Your task to perform on an android device: Go to location settings Image 0: 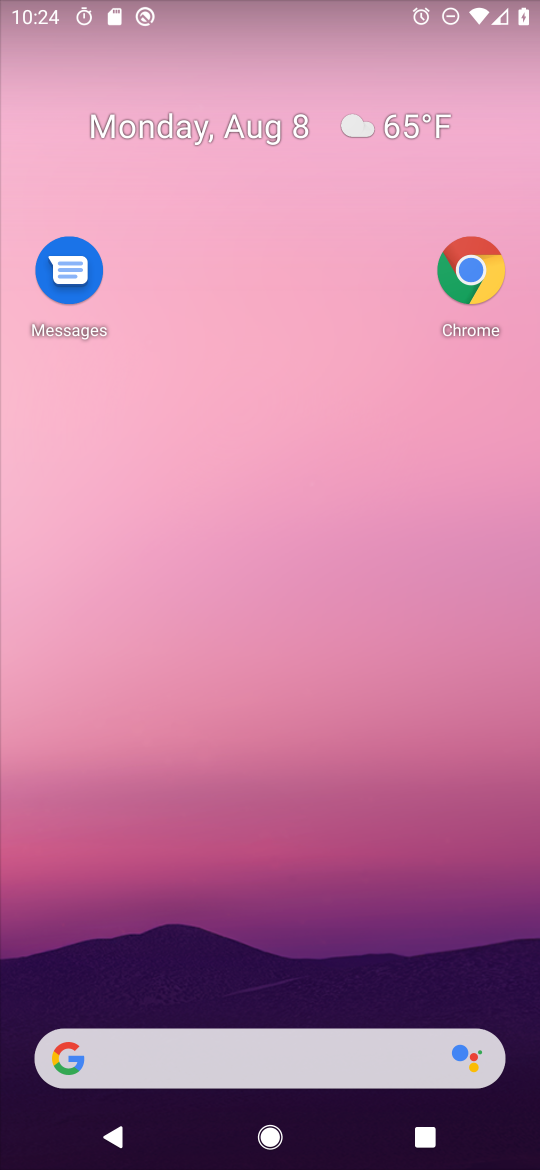
Step 0: drag from (265, 986) to (400, 44)
Your task to perform on an android device: Go to location settings Image 1: 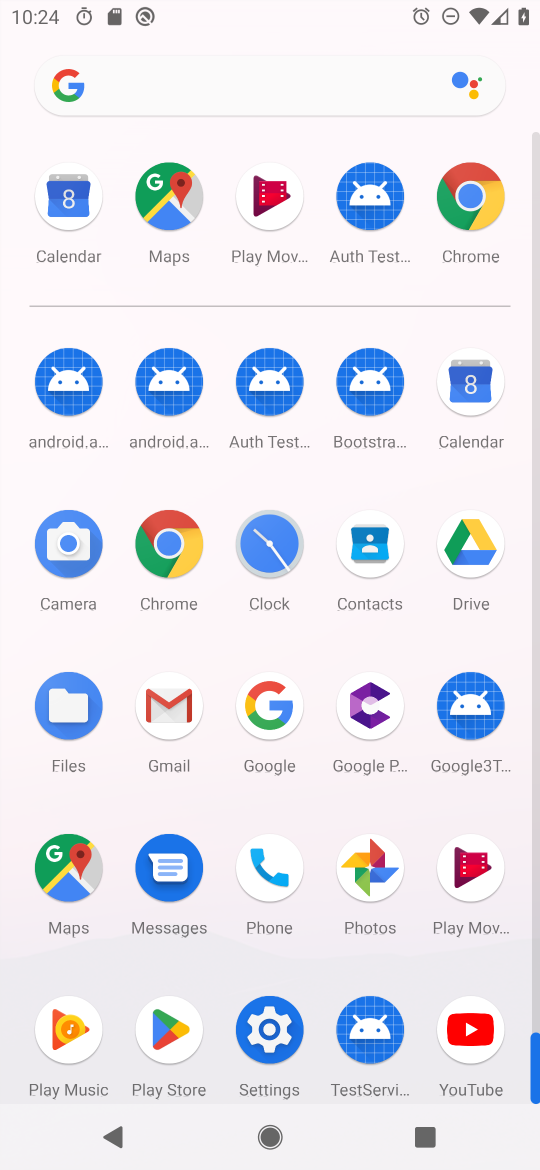
Step 1: click (252, 1028)
Your task to perform on an android device: Go to location settings Image 2: 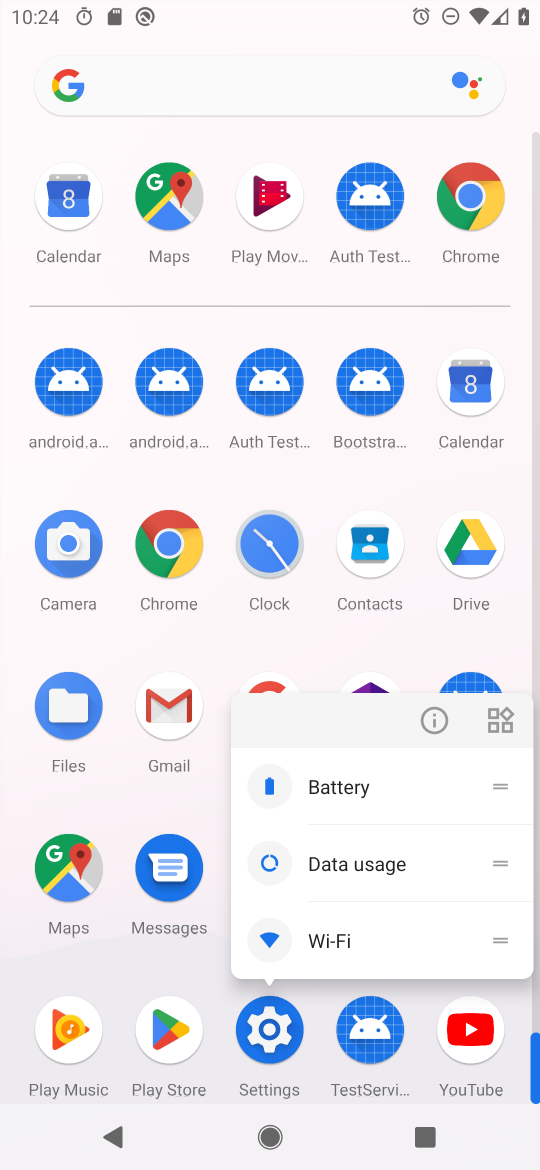
Step 2: click (436, 712)
Your task to perform on an android device: Go to location settings Image 3: 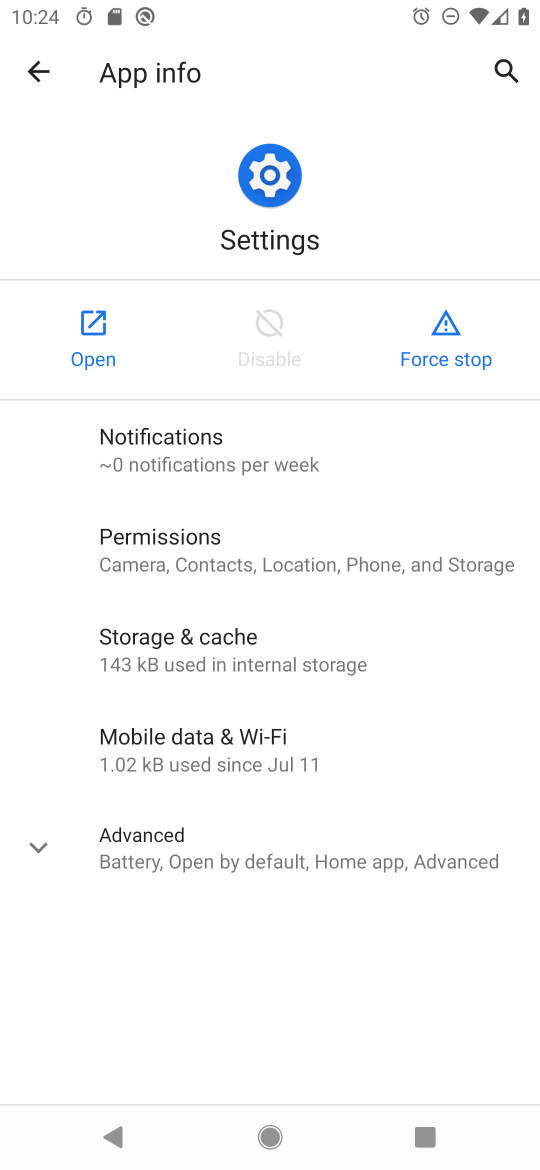
Step 3: click (107, 343)
Your task to perform on an android device: Go to location settings Image 4: 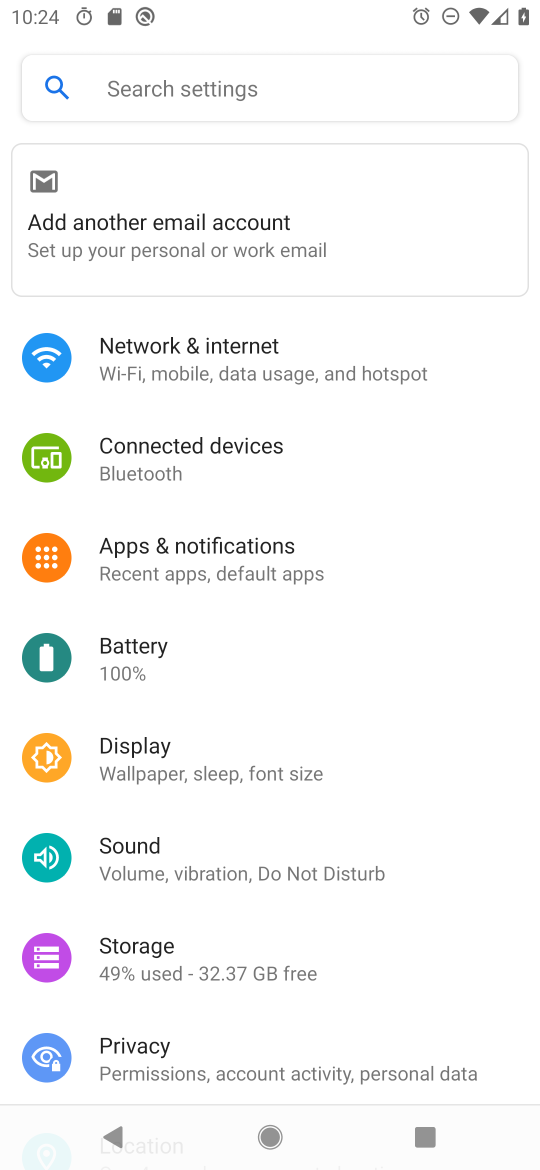
Step 4: drag from (264, 954) to (392, 522)
Your task to perform on an android device: Go to location settings Image 5: 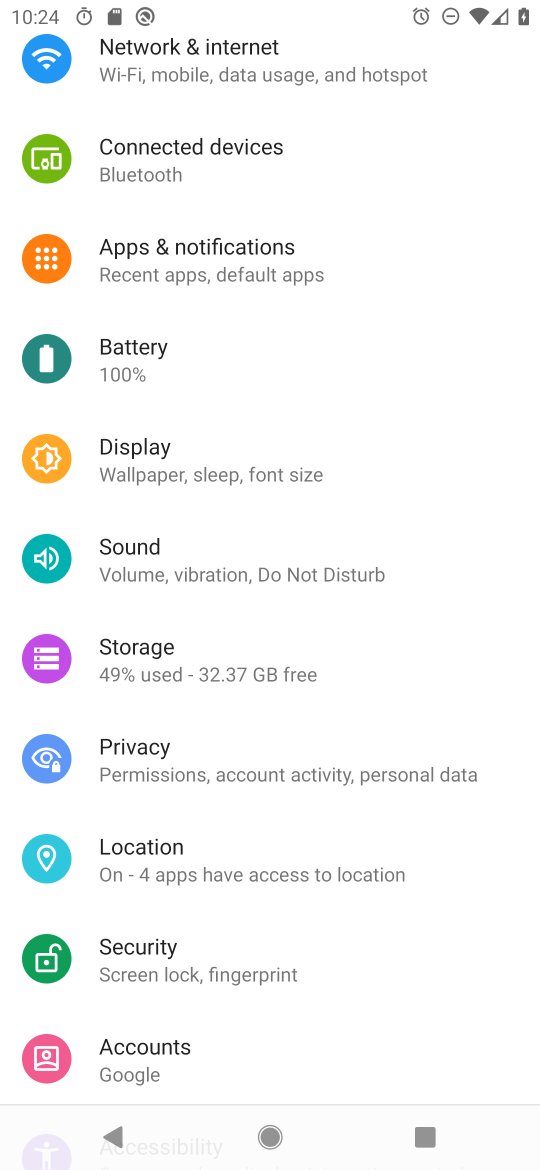
Step 5: click (156, 837)
Your task to perform on an android device: Go to location settings Image 6: 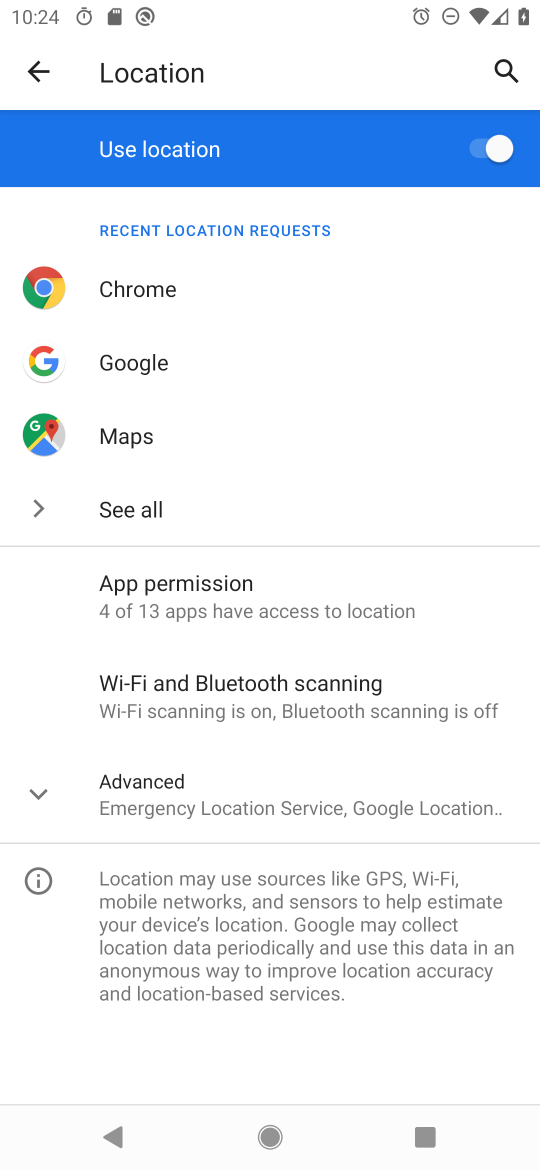
Step 6: click (111, 786)
Your task to perform on an android device: Go to location settings Image 7: 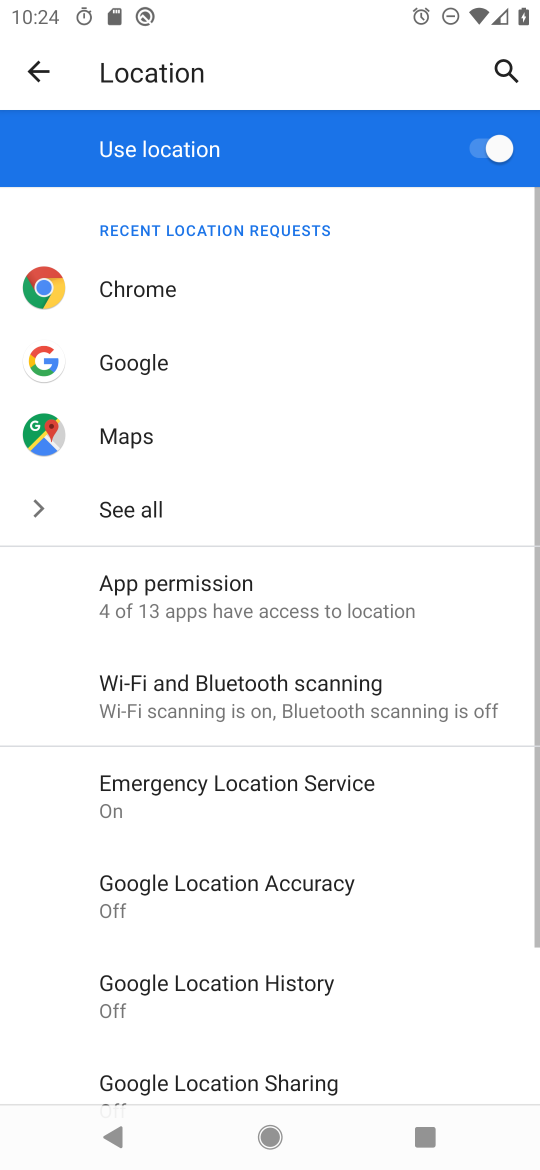
Step 7: task complete